Your task to perform on an android device: When is my next appointment? Image 0: 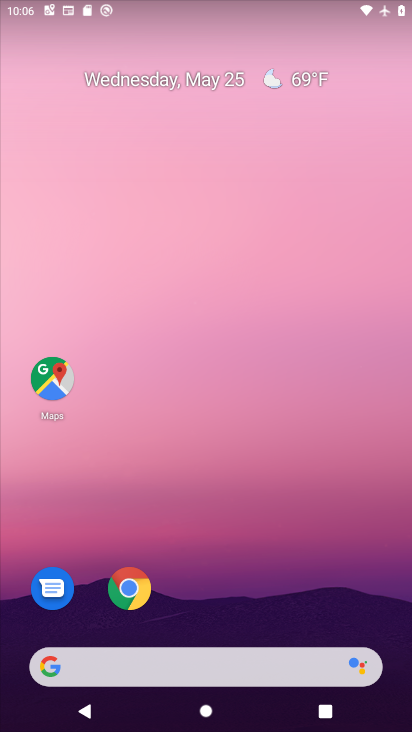
Step 0: drag from (313, 596) to (343, 192)
Your task to perform on an android device: When is my next appointment? Image 1: 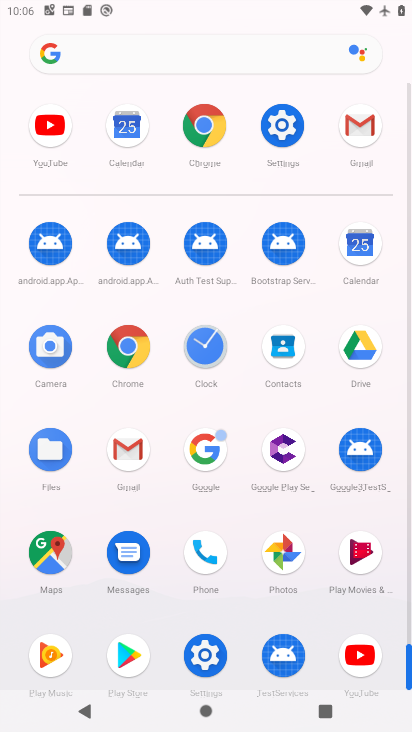
Step 1: click (364, 252)
Your task to perform on an android device: When is my next appointment? Image 2: 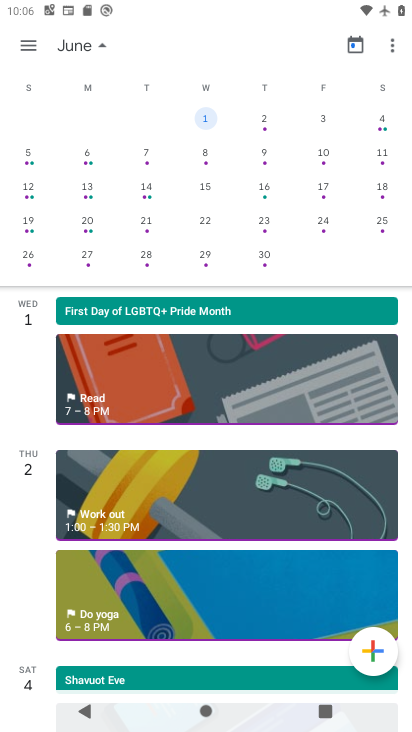
Step 2: drag from (19, 103) to (388, 172)
Your task to perform on an android device: When is my next appointment? Image 3: 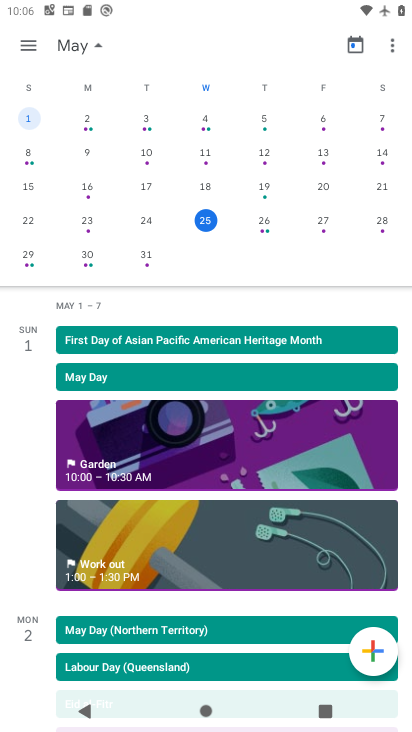
Step 3: click (270, 225)
Your task to perform on an android device: When is my next appointment? Image 4: 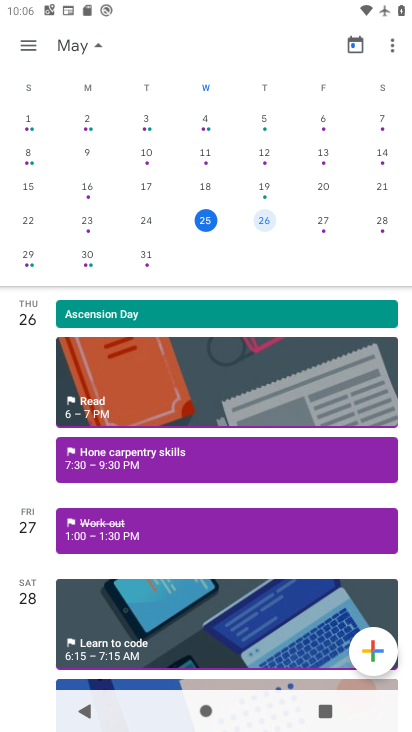
Step 4: click (178, 534)
Your task to perform on an android device: When is my next appointment? Image 5: 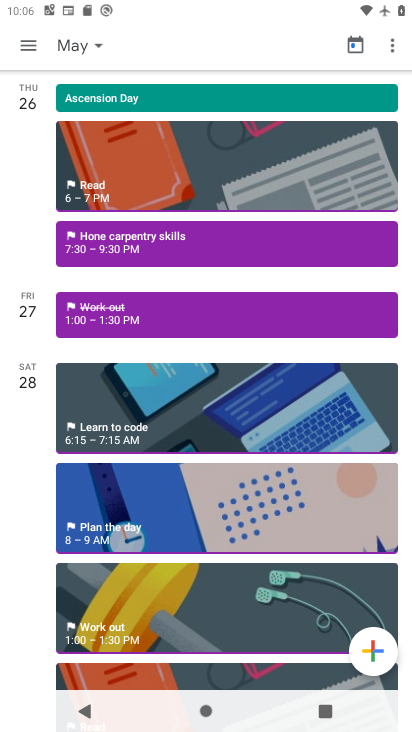
Step 5: click (178, 312)
Your task to perform on an android device: When is my next appointment? Image 6: 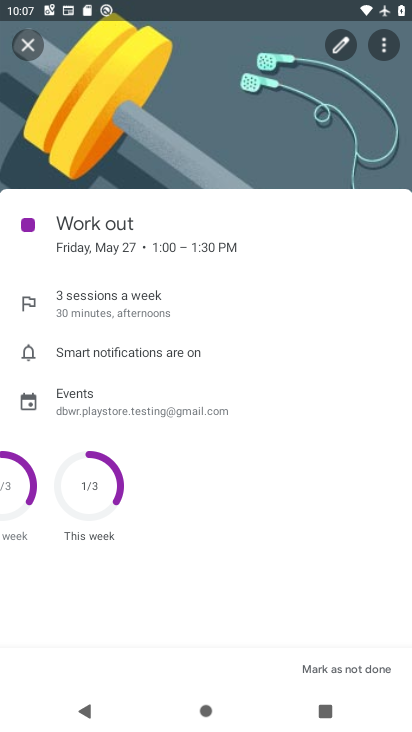
Step 6: task complete